Your task to perform on an android device: Open Wikipedia Image 0: 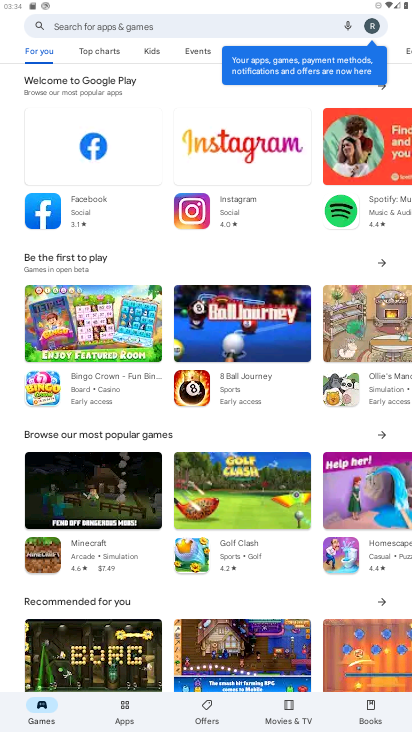
Step 0: press home button
Your task to perform on an android device: Open Wikipedia Image 1: 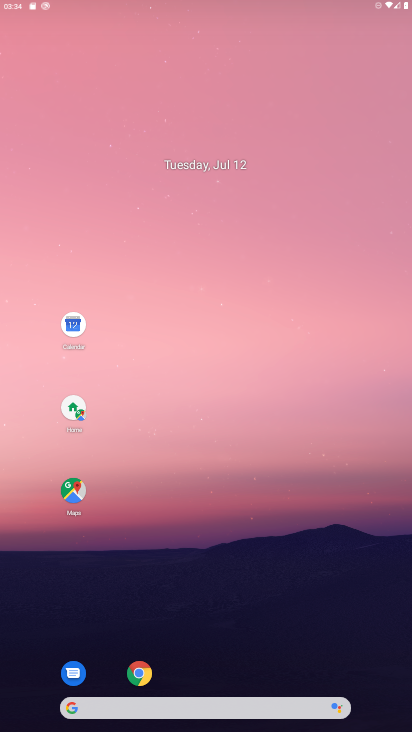
Step 1: drag from (245, 624) to (196, 44)
Your task to perform on an android device: Open Wikipedia Image 2: 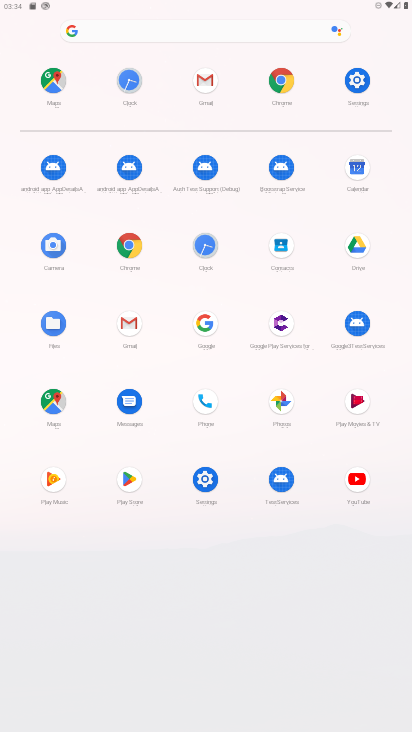
Step 2: click (273, 82)
Your task to perform on an android device: Open Wikipedia Image 3: 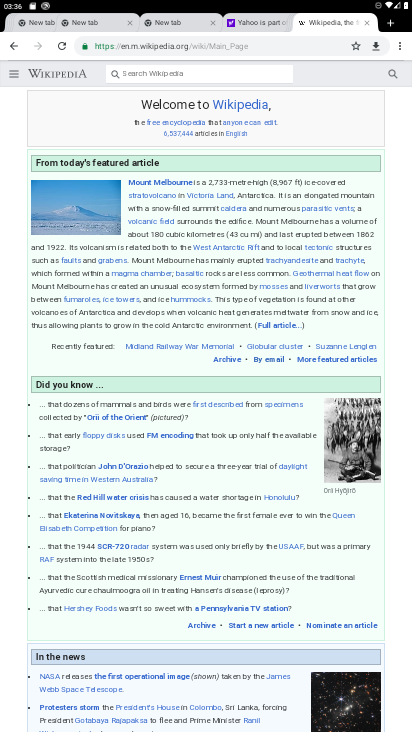
Step 3: task complete